Your task to perform on an android device: turn on data saver in the chrome app Image 0: 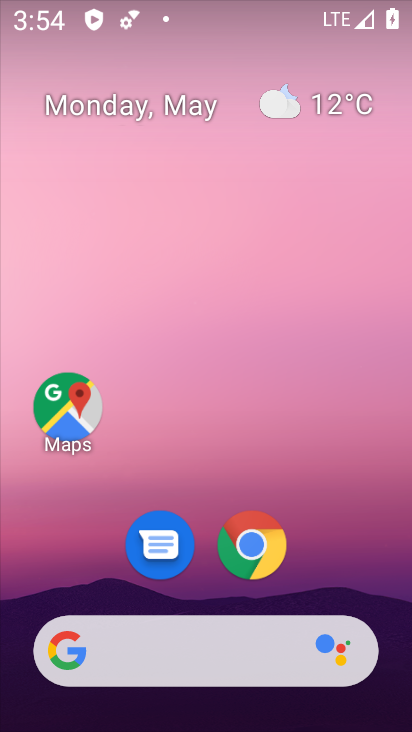
Step 0: click (249, 547)
Your task to perform on an android device: turn on data saver in the chrome app Image 1: 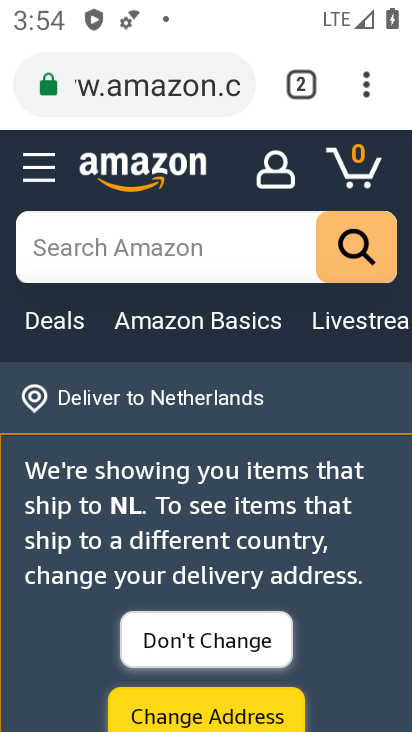
Step 1: click (370, 88)
Your task to perform on an android device: turn on data saver in the chrome app Image 2: 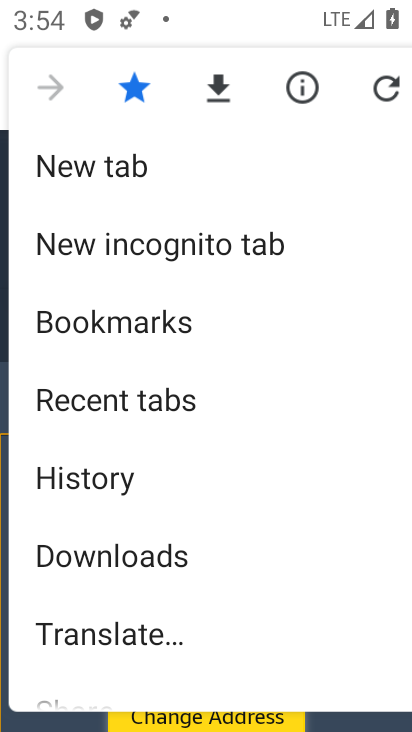
Step 2: drag from (225, 606) to (218, 298)
Your task to perform on an android device: turn on data saver in the chrome app Image 3: 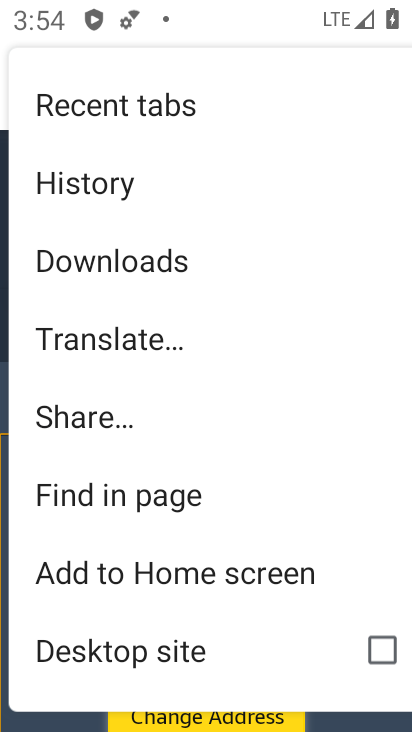
Step 3: drag from (267, 662) to (234, 263)
Your task to perform on an android device: turn on data saver in the chrome app Image 4: 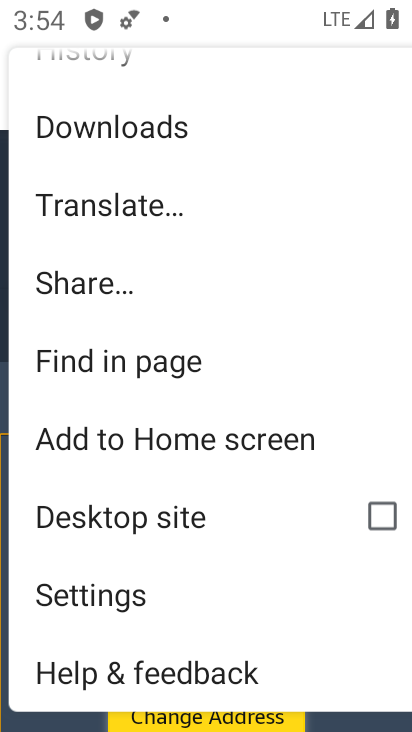
Step 4: click (100, 591)
Your task to perform on an android device: turn on data saver in the chrome app Image 5: 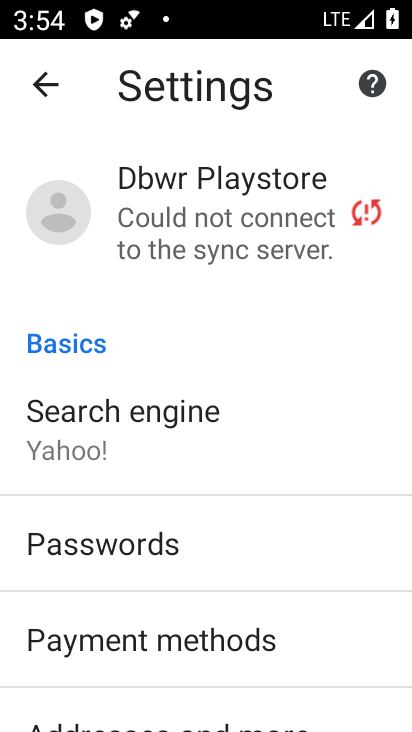
Step 5: drag from (324, 655) to (236, 249)
Your task to perform on an android device: turn on data saver in the chrome app Image 6: 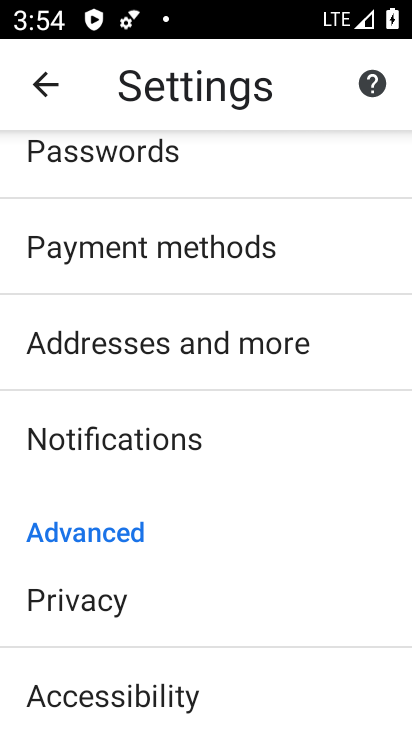
Step 6: drag from (250, 659) to (276, 300)
Your task to perform on an android device: turn on data saver in the chrome app Image 7: 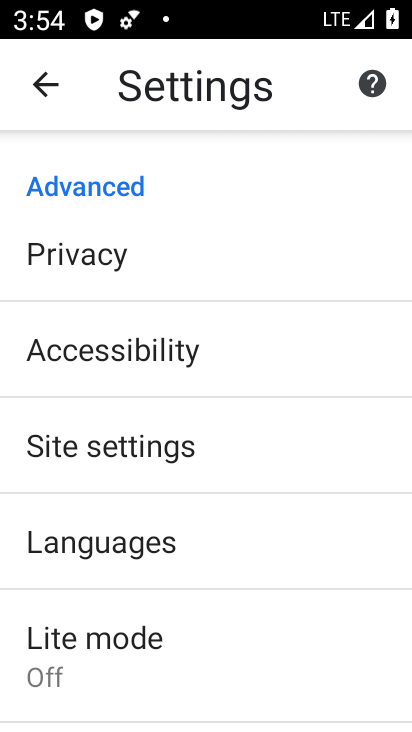
Step 7: click (101, 640)
Your task to perform on an android device: turn on data saver in the chrome app Image 8: 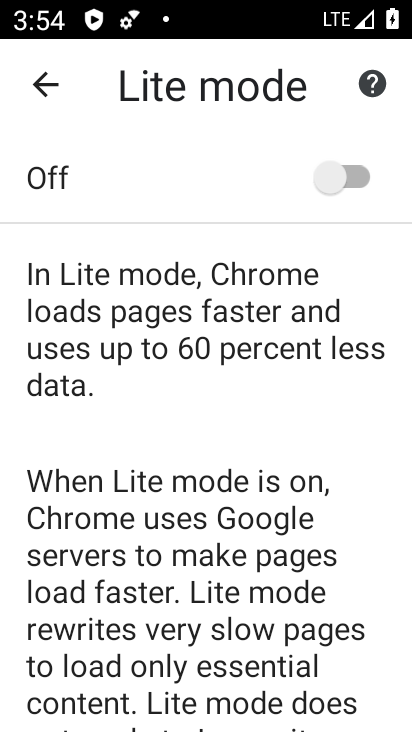
Step 8: click (357, 166)
Your task to perform on an android device: turn on data saver in the chrome app Image 9: 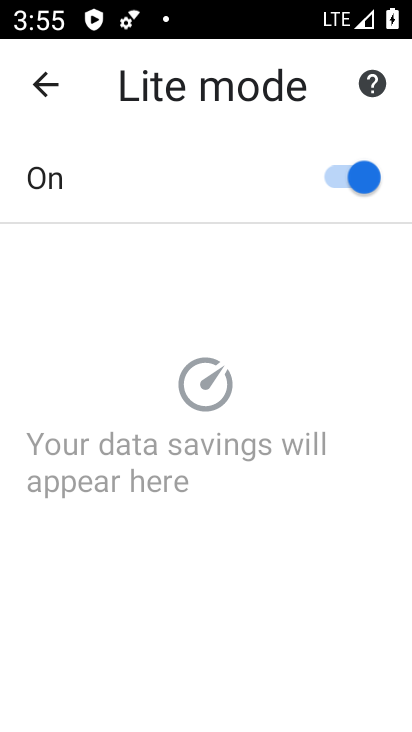
Step 9: task complete